Your task to perform on an android device: toggle pop-ups in chrome Image 0: 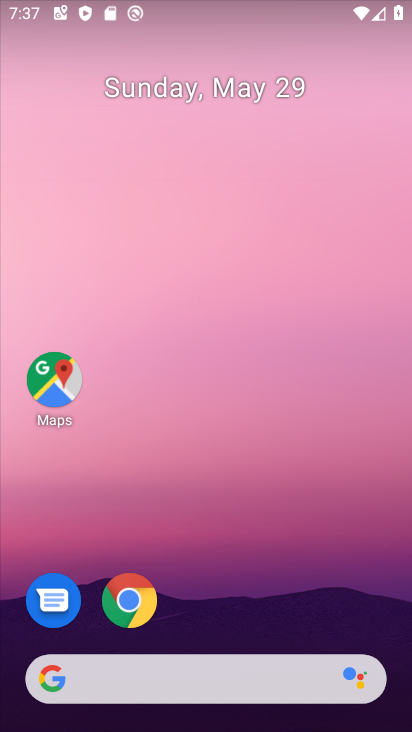
Step 0: click (136, 601)
Your task to perform on an android device: toggle pop-ups in chrome Image 1: 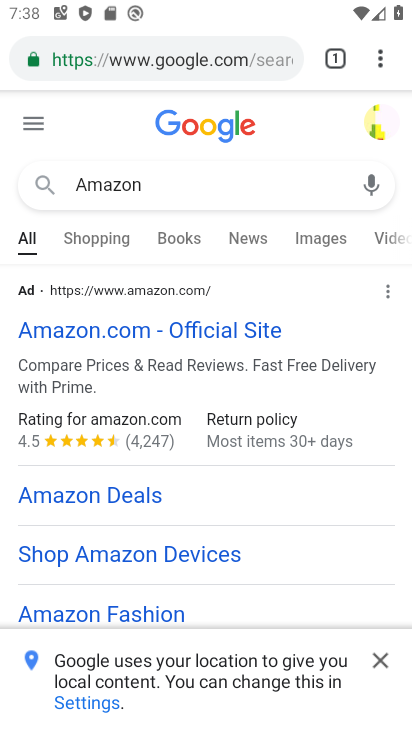
Step 1: click (380, 68)
Your task to perform on an android device: toggle pop-ups in chrome Image 2: 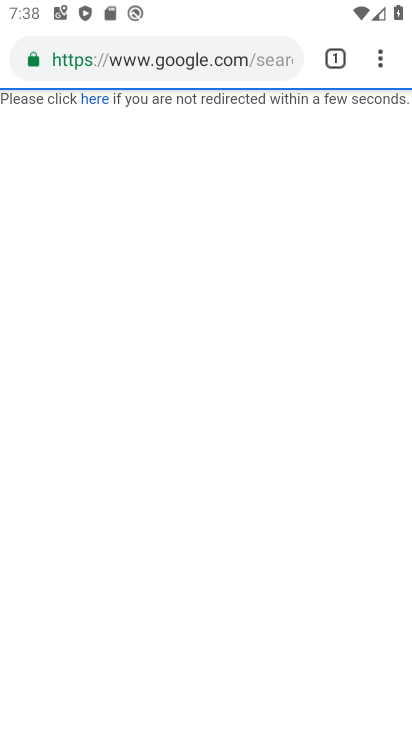
Step 2: click (382, 68)
Your task to perform on an android device: toggle pop-ups in chrome Image 3: 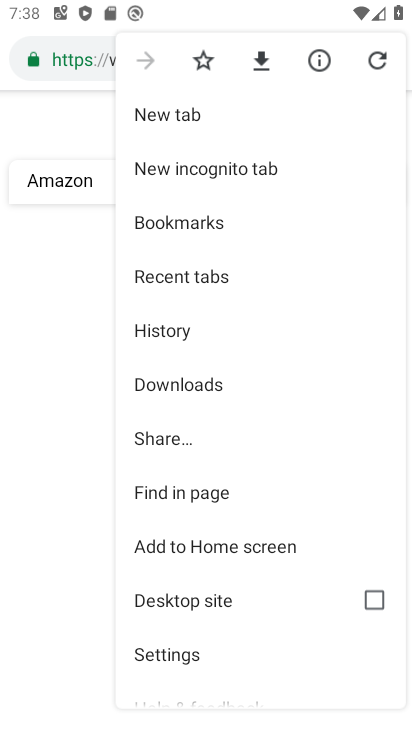
Step 3: drag from (202, 646) to (201, 495)
Your task to perform on an android device: toggle pop-ups in chrome Image 4: 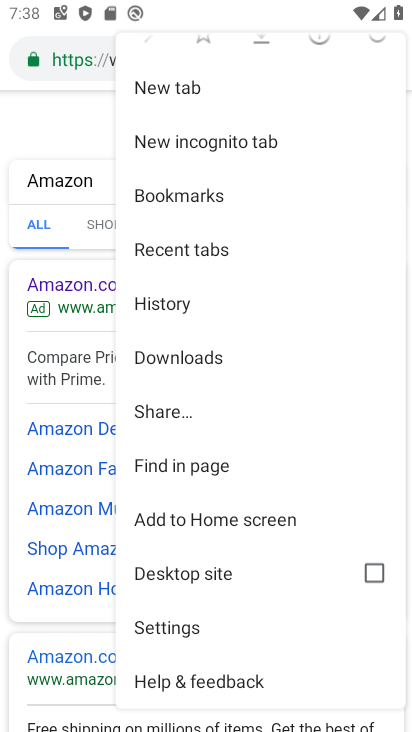
Step 4: click (152, 629)
Your task to perform on an android device: toggle pop-ups in chrome Image 5: 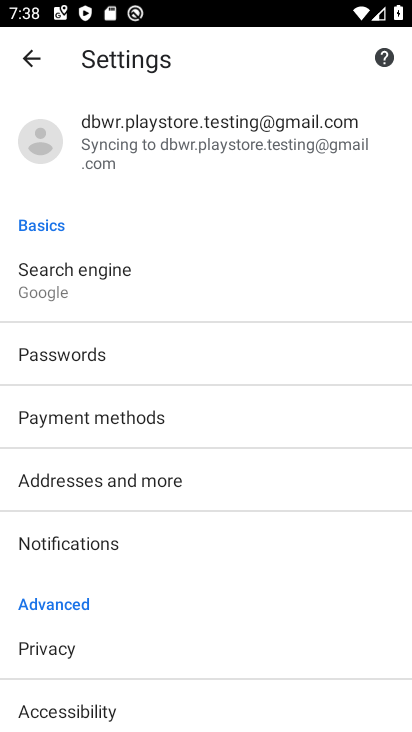
Step 5: drag from (141, 573) to (186, 242)
Your task to perform on an android device: toggle pop-ups in chrome Image 6: 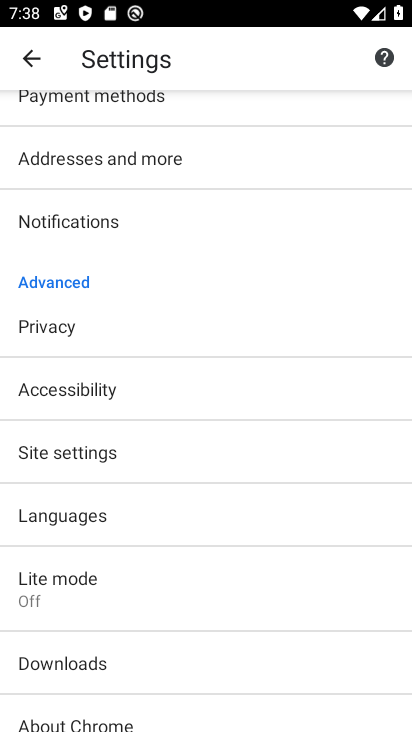
Step 6: click (101, 456)
Your task to perform on an android device: toggle pop-ups in chrome Image 7: 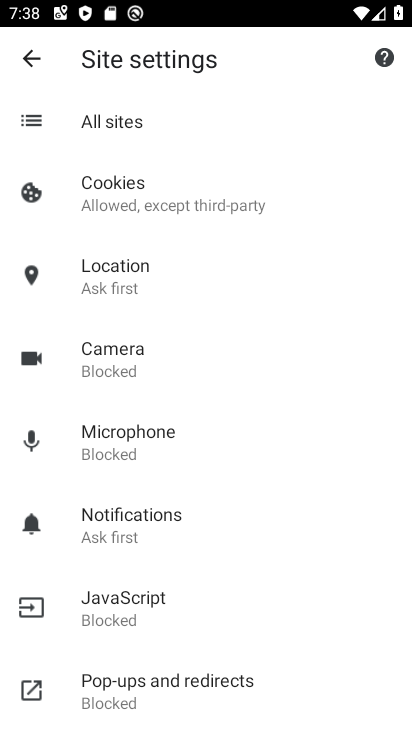
Step 7: click (141, 685)
Your task to perform on an android device: toggle pop-ups in chrome Image 8: 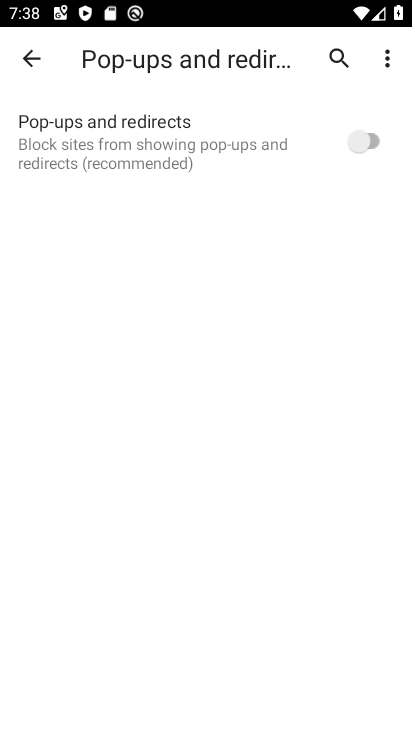
Step 8: click (386, 129)
Your task to perform on an android device: toggle pop-ups in chrome Image 9: 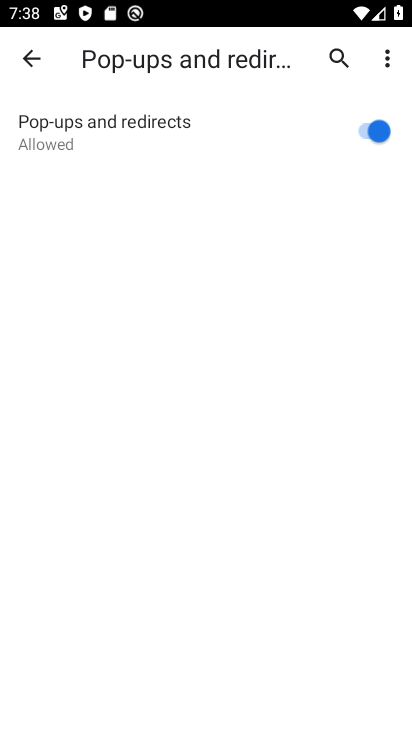
Step 9: task complete